Your task to perform on an android device: Search for vegetarian restaurants on Maps Image 0: 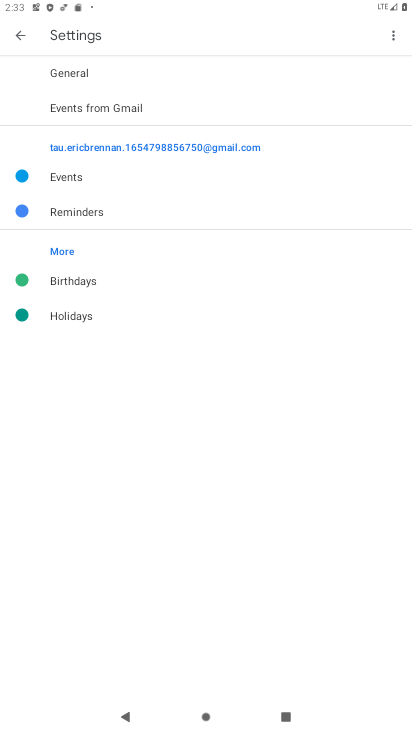
Step 0: press home button
Your task to perform on an android device: Search for vegetarian restaurants on Maps Image 1: 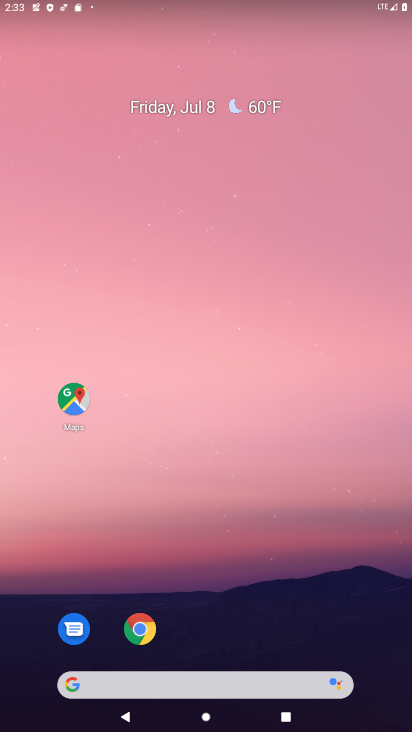
Step 1: click (88, 409)
Your task to perform on an android device: Search for vegetarian restaurants on Maps Image 2: 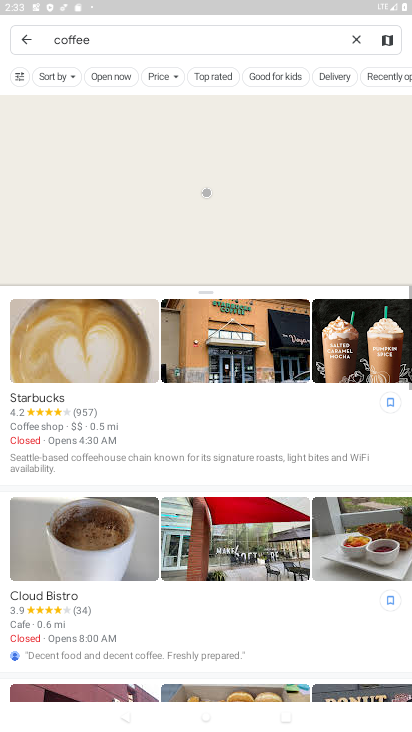
Step 2: click (194, 40)
Your task to perform on an android device: Search for vegetarian restaurants on Maps Image 3: 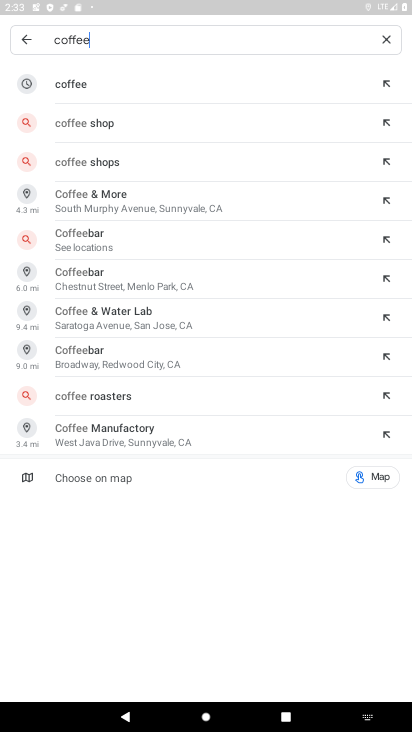
Step 3: click (386, 40)
Your task to perform on an android device: Search for vegetarian restaurants on Maps Image 4: 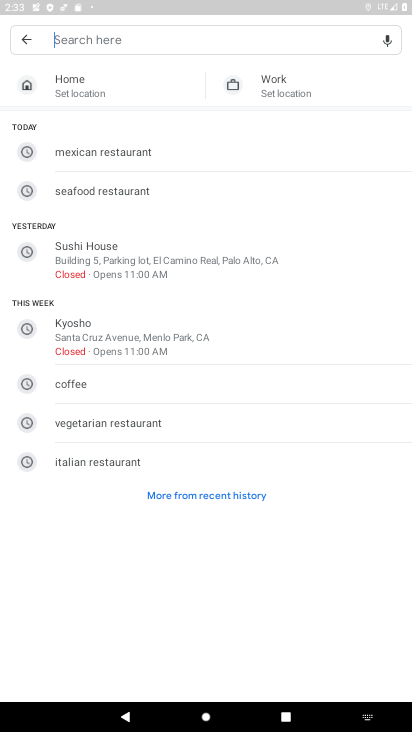
Step 4: type "vegetarian restaurants"
Your task to perform on an android device: Search for vegetarian restaurants on Maps Image 5: 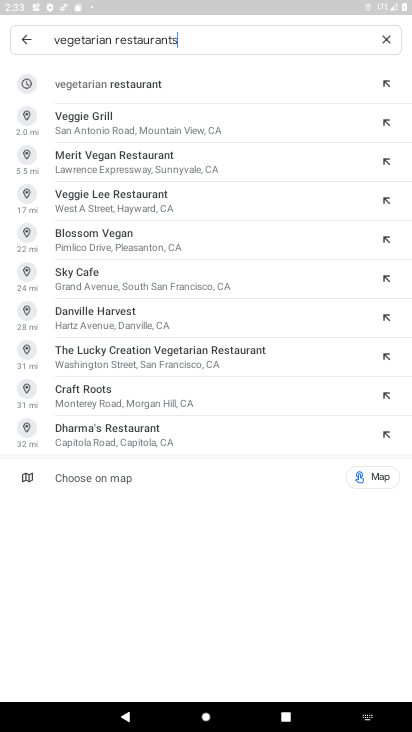
Step 5: click (230, 80)
Your task to perform on an android device: Search for vegetarian restaurants on Maps Image 6: 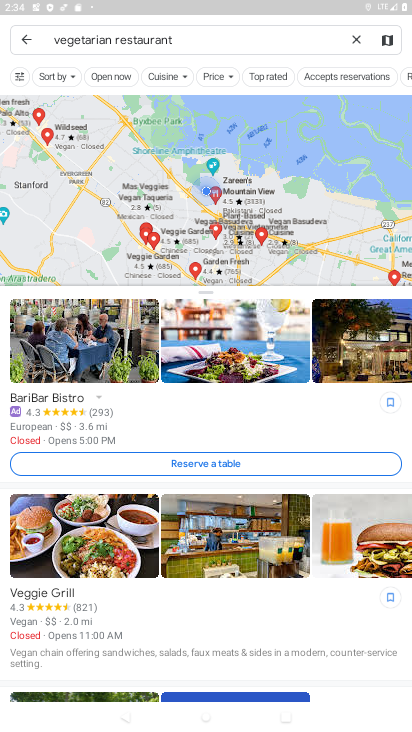
Step 6: task complete